Your task to perform on an android device: Open the map Image 0: 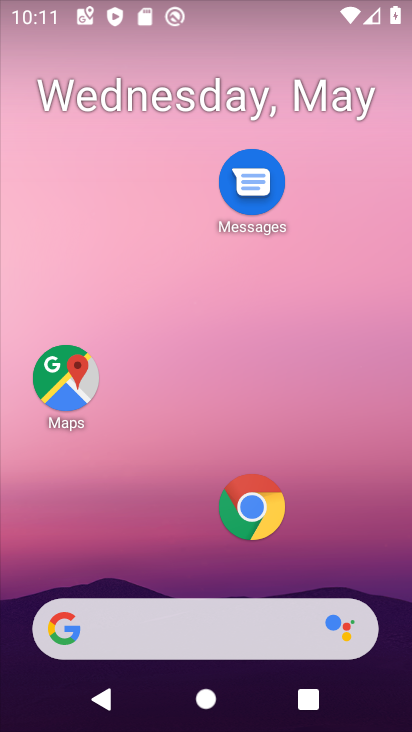
Step 0: click (63, 374)
Your task to perform on an android device: Open the map Image 1: 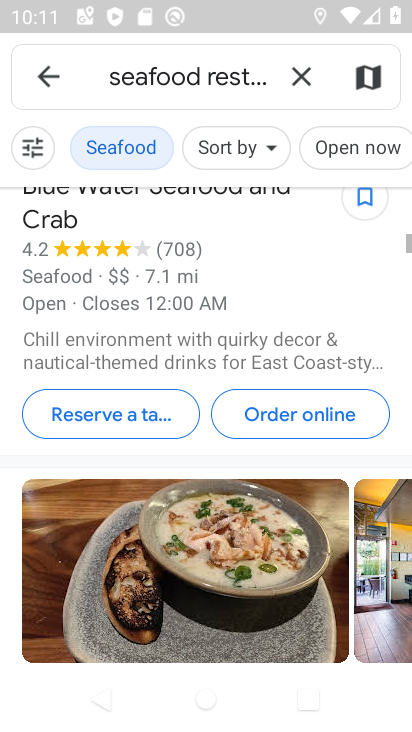
Step 1: click (50, 76)
Your task to perform on an android device: Open the map Image 2: 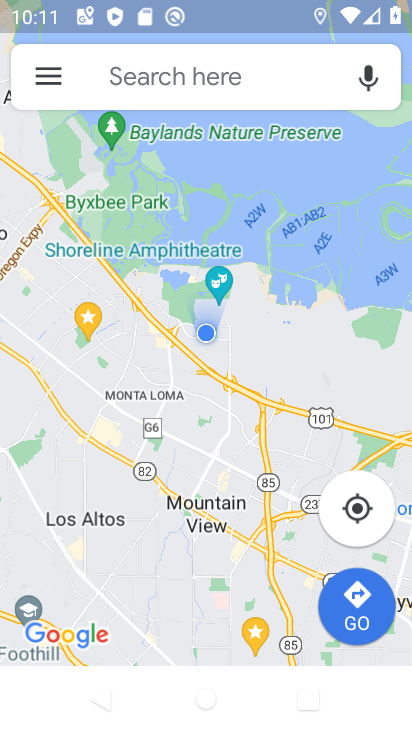
Step 2: task complete